Your task to perform on an android device: Go to accessibility settings Image 0: 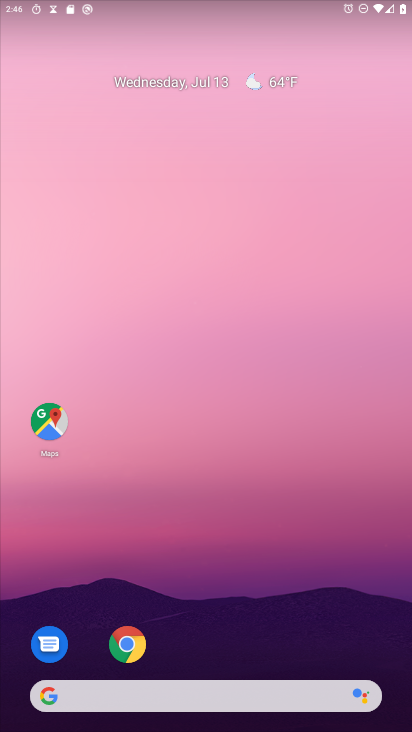
Step 0: press home button
Your task to perform on an android device: Go to accessibility settings Image 1: 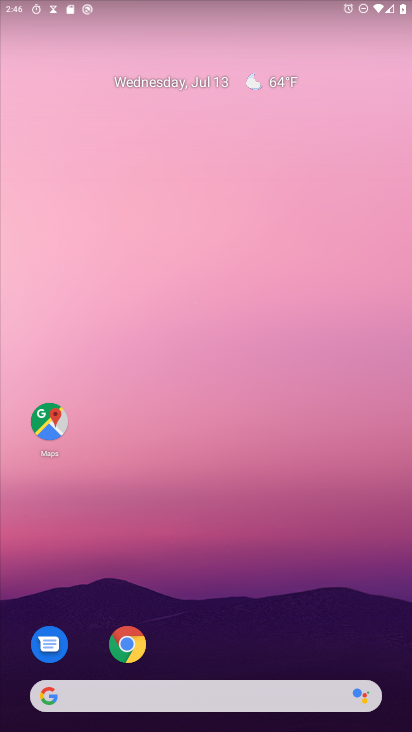
Step 1: drag from (298, 650) to (324, 181)
Your task to perform on an android device: Go to accessibility settings Image 2: 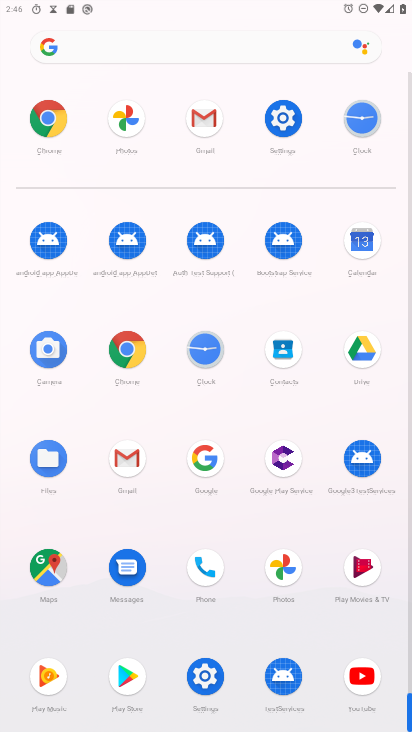
Step 2: click (283, 129)
Your task to perform on an android device: Go to accessibility settings Image 3: 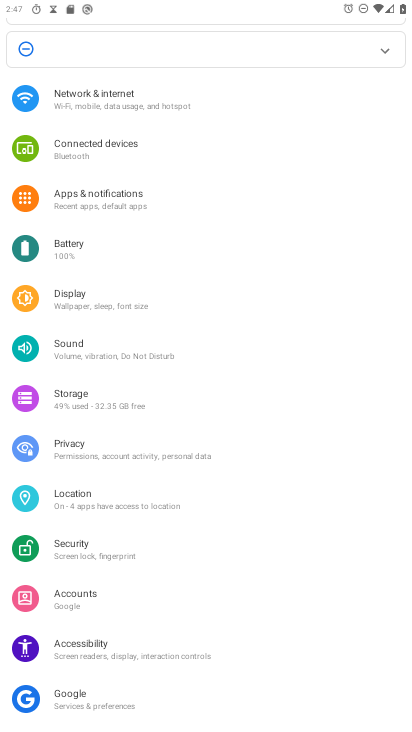
Step 3: click (108, 643)
Your task to perform on an android device: Go to accessibility settings Image 4: 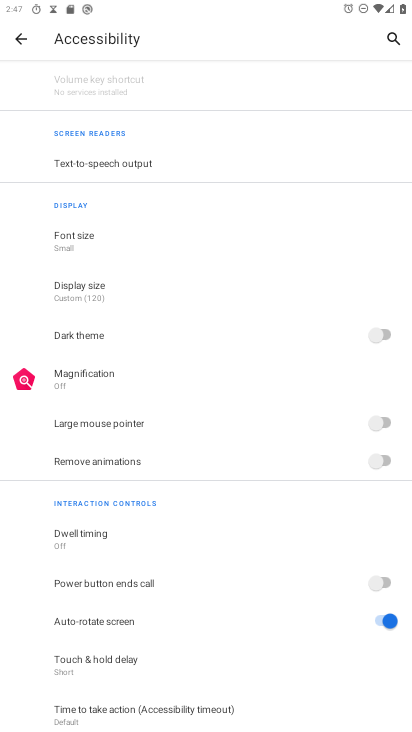
Step 4: task complete